Your task to perform on an android device: set the timer Image 0: 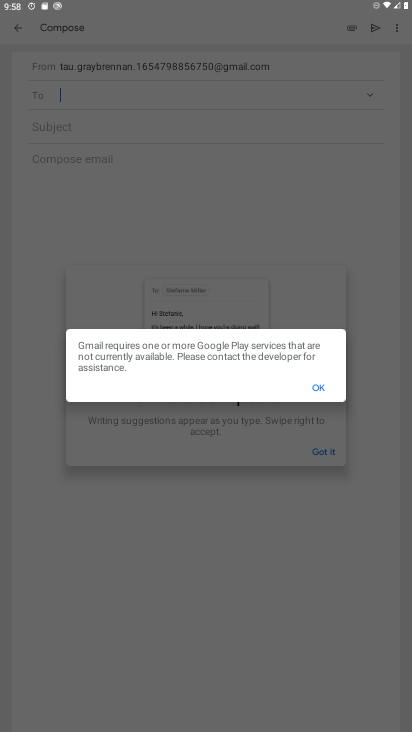
Step 0: press home button
Your task to perform on an android device: set the timer Image 1: 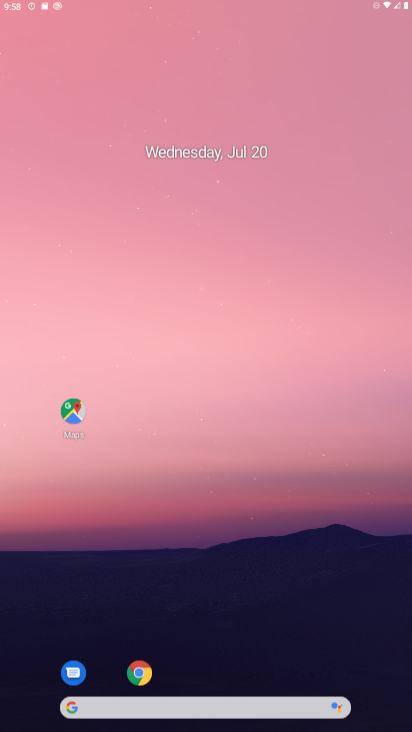
Step 1: drag from (393, 653) to (220, 12)
Your task to perform on an android device: set the timer Image 2: 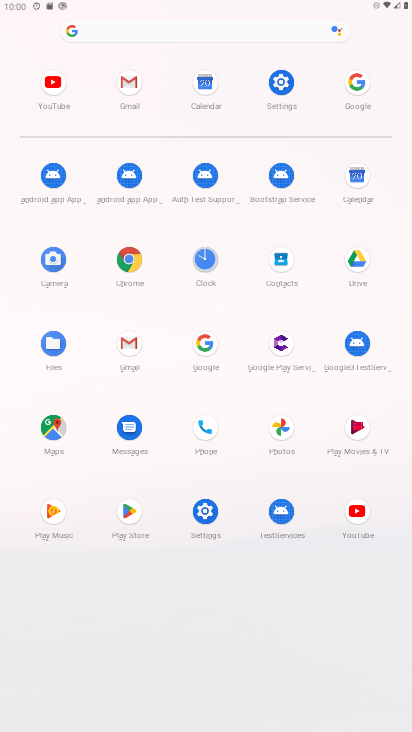
Step 2: click (204, 260)
Your task to perform on an android device: set the timer Image 3: 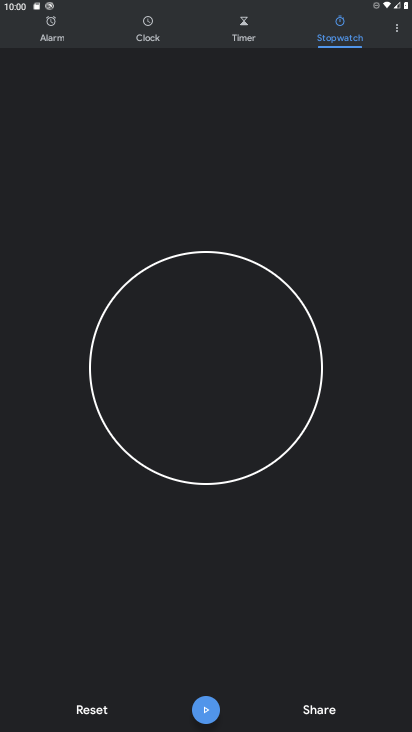
Step 3: click (250, 23)
Your task to perform on an android device: set the timer Image 4: 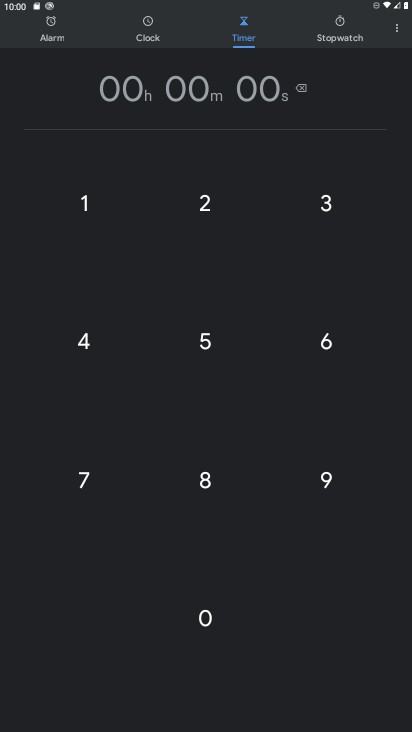
Step 4: click (86, 201)
Your task to perform on an android device: set the timer Image 5: 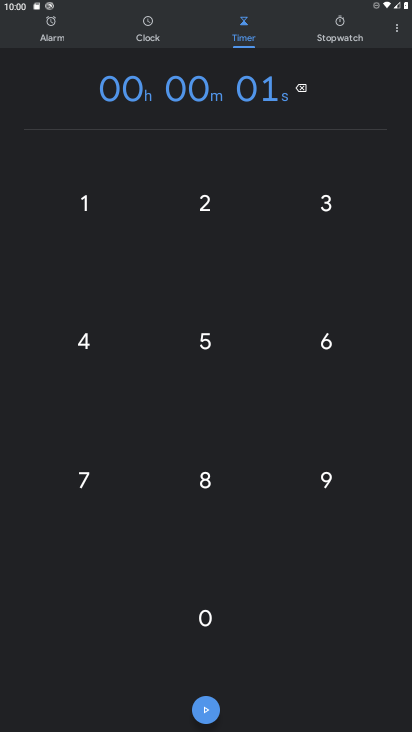
Step 5: click (86, 201)
Your task to perform on an android device: set the timer Image 6: 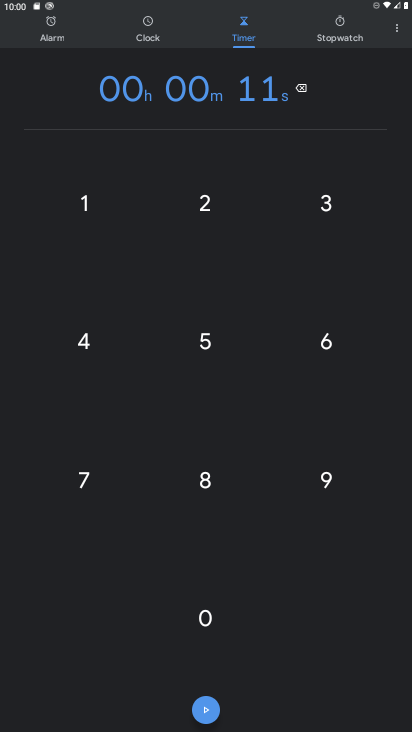
Step 6: click (86, 201)
Your task to perform on an android device: set the timer Image 7: 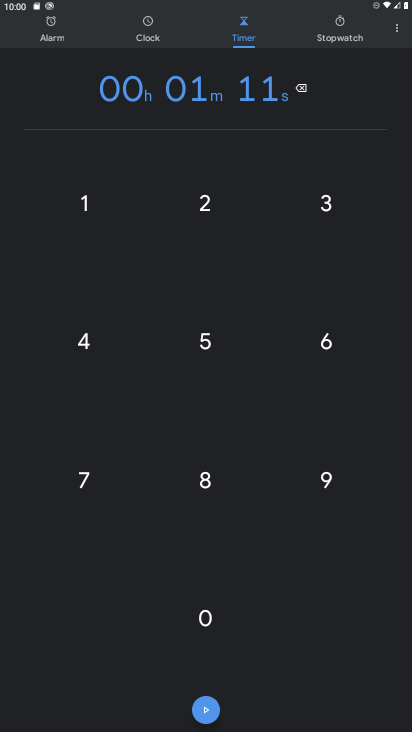
Step 7: click (86, 201)
Your task to perform on an android device: set the timer Image 8: 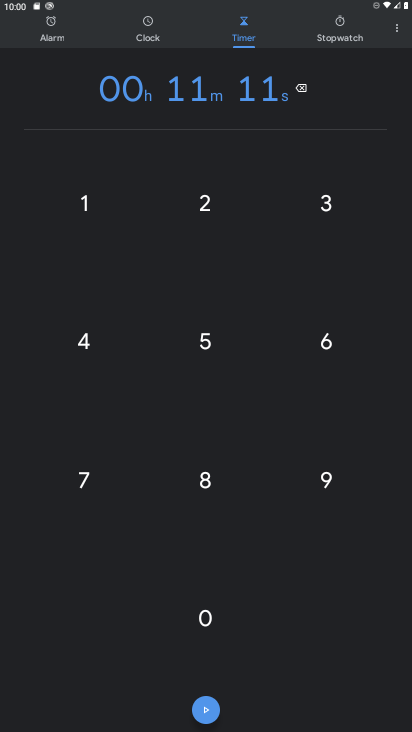
Step 8: click (86, 201)
Your task to perform on an android device: set the timer Image 9: 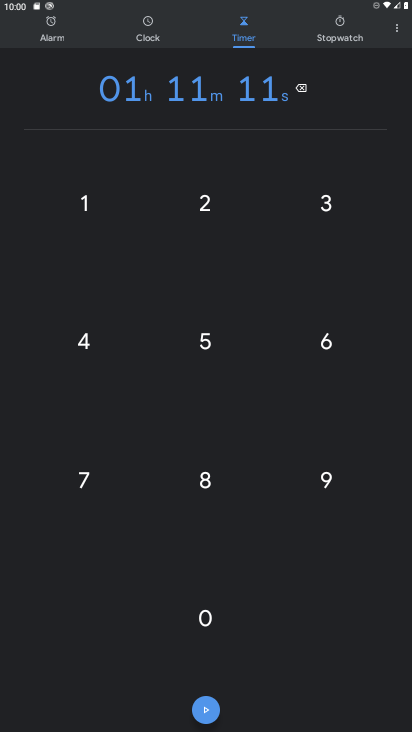
Step 9: task complete